Your task to perform on an android device: allow notifications from all sites in the chrome app Image 0: 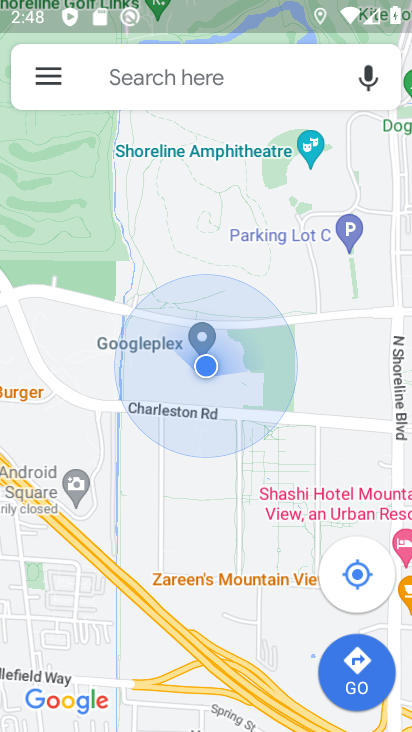
Step 0: press home button
Your task to perform on an android device: allow notifications from all sites in the chrome app Image 1: 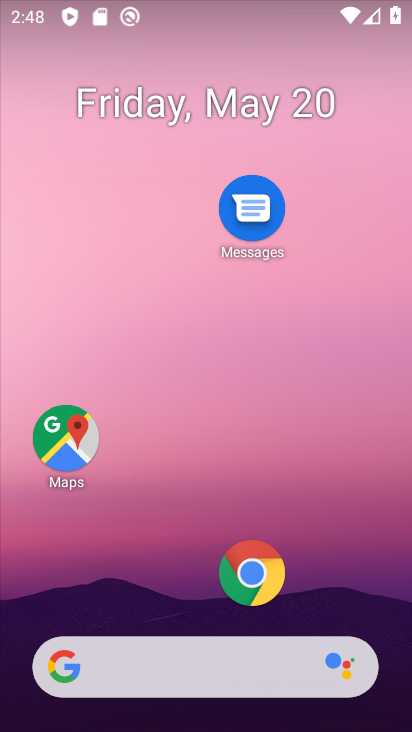
Step 1: click (248, 579)
Your task to perform on an android device: allow notifications from all sites in the chrome app Image 2: 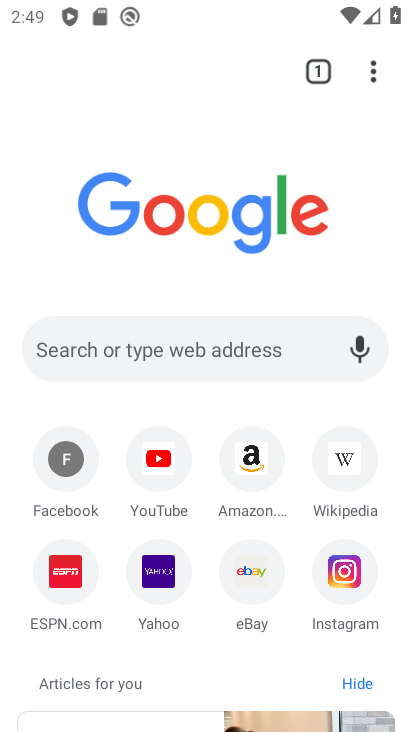
Step 2: click (377, 75)
Your task to perform on an android device: allow notifications from all sites in the chrome app Image 3: 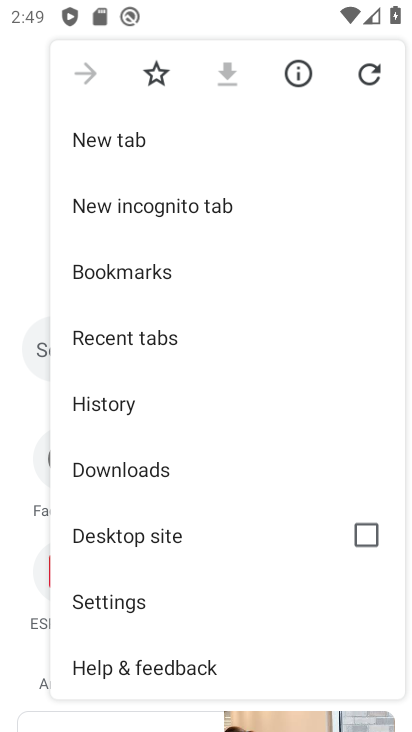
Step 3: drag from (137, 649) to (197, 53)
Your task to perform on an android device: allow notifications from all sites in the chrome app Image 4: 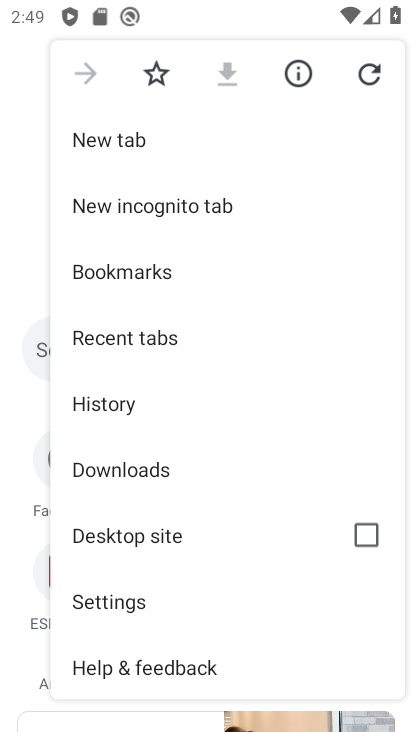
Step 4: drag from (190, 128) to (177, 705)
Your task to perform on an android device: allow notifications from all sites in the chrome app Image 5: 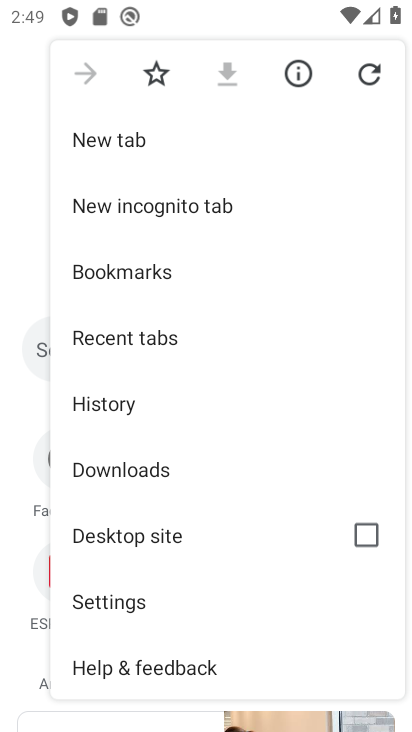
Step 5: click (177, 705)
Your task to perform on an android device: allow notifications from all sites in the chrome app Image 6: 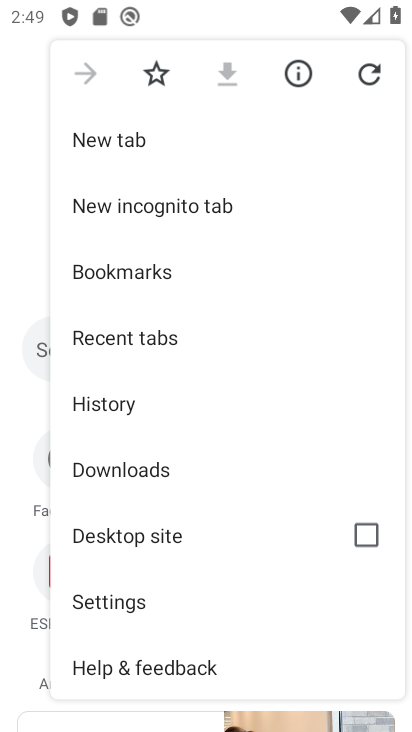
Step 6: drag from (170, 177) to (123, 728)
Your task to perform on an android device: allow notifications from all sites in the chrome app Image 7: 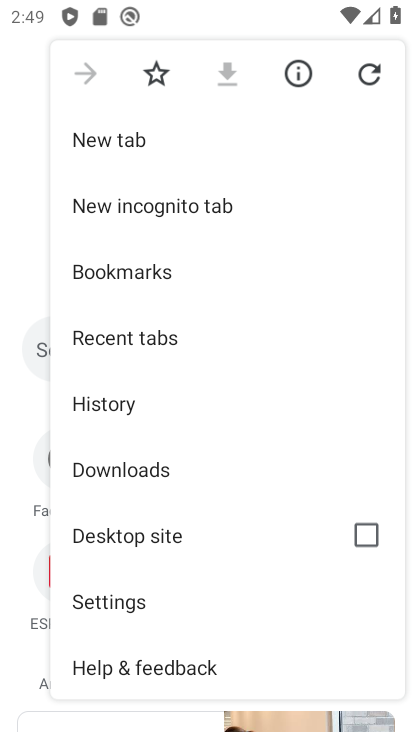
Step 7: click (116, 608)
Your task to perform on an android device: allow notifications from all sites in the chrome app Image 8: 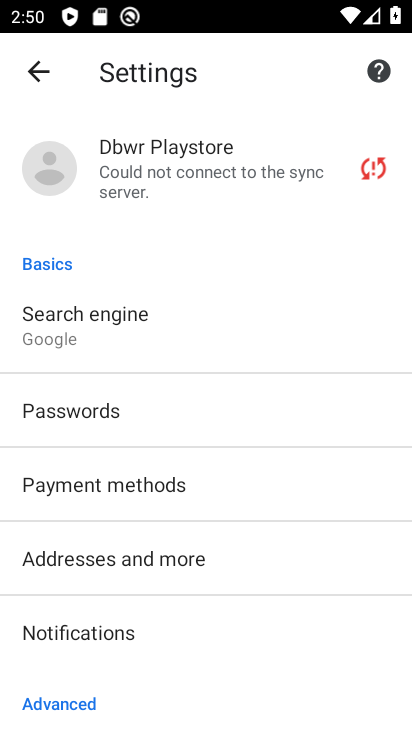
Step 8: click (116, 608)
Your task to perform on an android device: allow notifications from all sites in the chrome app Image 9: 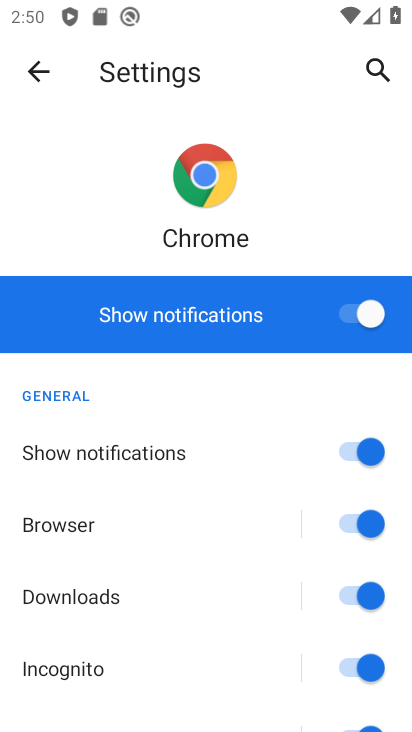
Step 9: task complete